Your task to perform on an android device: turn off notifications settings in the gmail app Image 0: 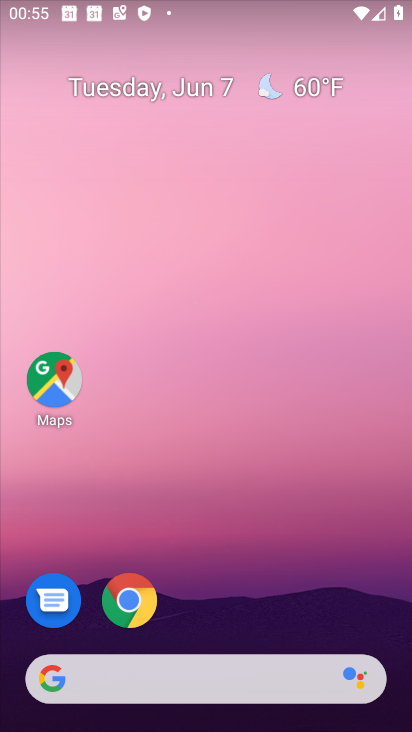
Step 0: drag from (211, 730) to (211, 140)
Your task to perform on an android device: turn off notifications settings in the gmail app Image 1: 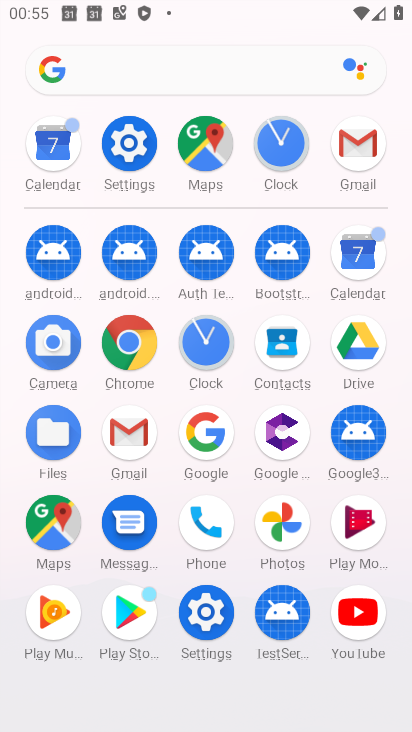
Step 1: click (210, 608)
Your task to perform on an android device: turn off notifications settings in the gmail app Image 2: 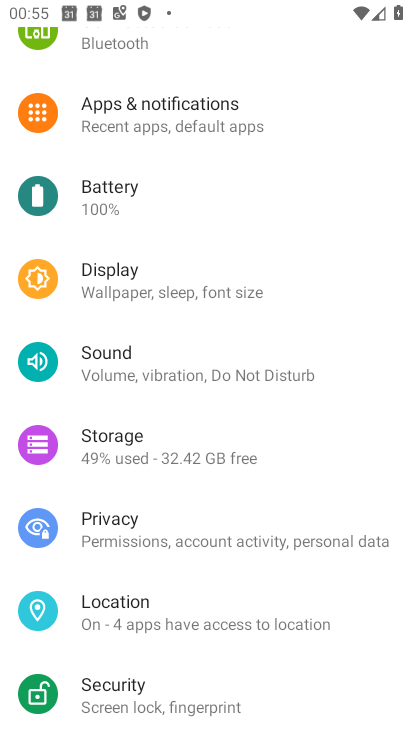
Step 2: press home button
Your task to perform on an android device: turn off notifications settings in the gmail app Image 3: 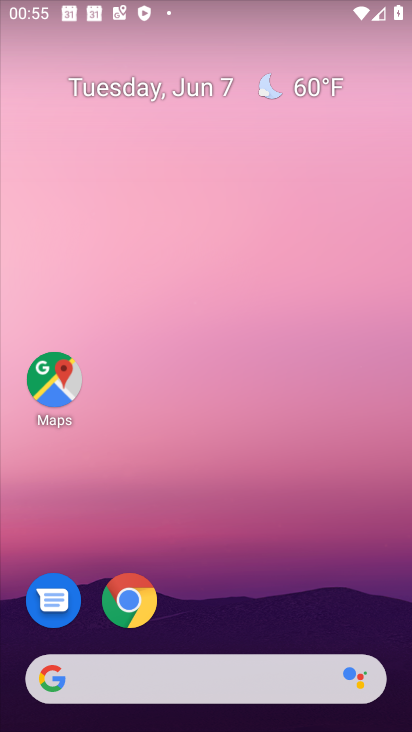
Step 3: drag from (183, 730) to (180, 253)
Your task to perform on an android device: turn off notifications settings in the gmail app Image 4: 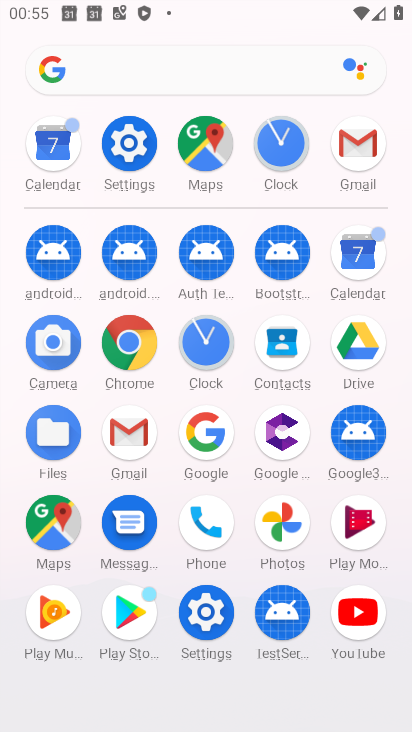
Step 4: click (138, 432)
Your task to perform on an android device: turn off notifications settings in the gmail app Image 5: 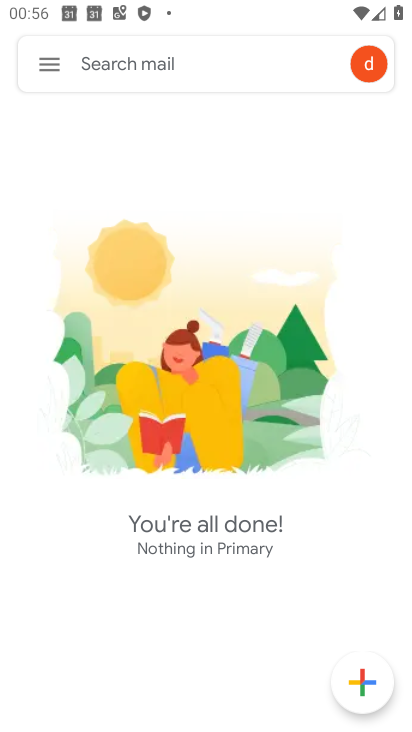
Step 5: click (51, 57)
Your task to perform on an android device: turn off notifications settings in the gmail app Image 6: 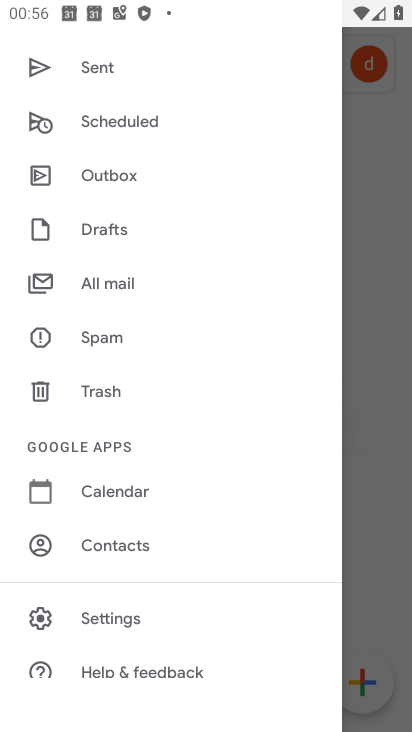
Step 6: click (105, 616)
Your task to perform on an android device: turn off notifications settings in the gmail app Image 7: 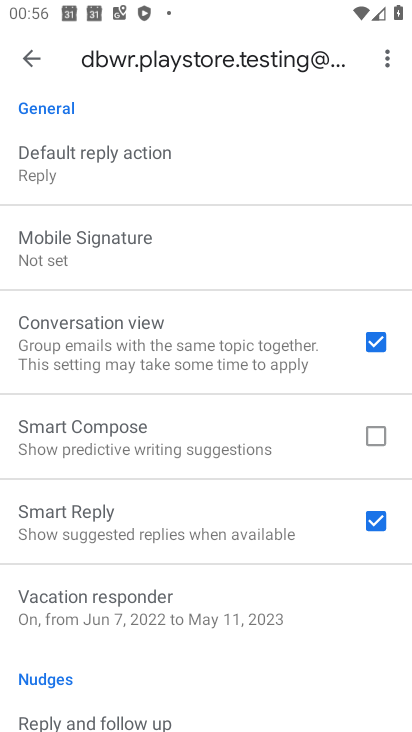
Step 7: drag from (218, 231) to (212, 609)
Your task to perform on an android device: turn off notifications settings in the gmail app Image 8: 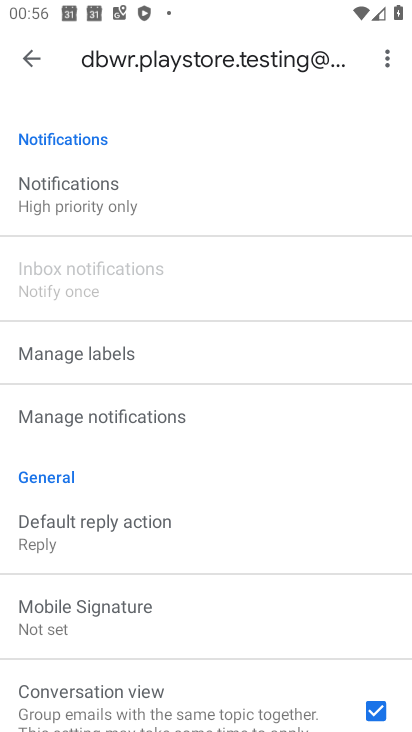
Step 8: drag from (216, 149) to (235, 592)
Your task to perform on an android device: turn off notifications settings in the gmail app Image 9: 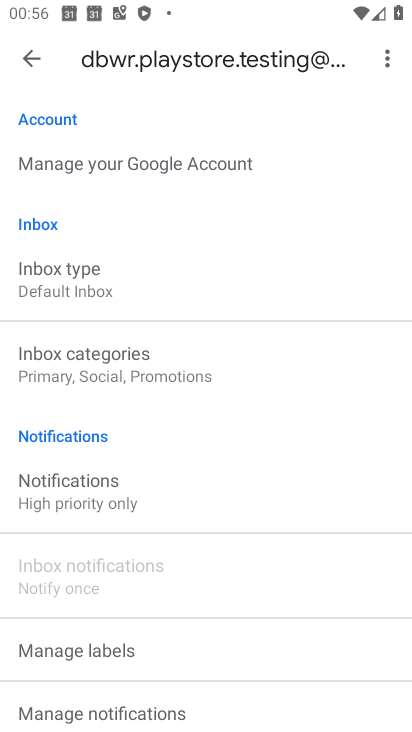
Step 9: click (67, 510)
Your task to perform on an android device: turn off notifications settings in the gmail app Image 10: 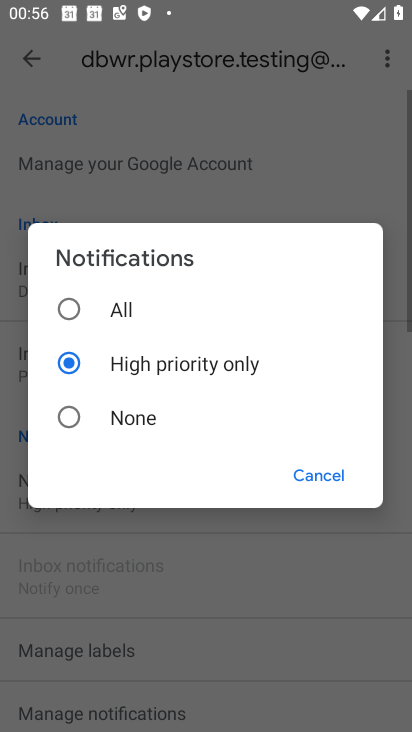
Step 10: click (69, 412)
Your task to perform on an android device: turn off notifications settings in the gmail app Image 11: 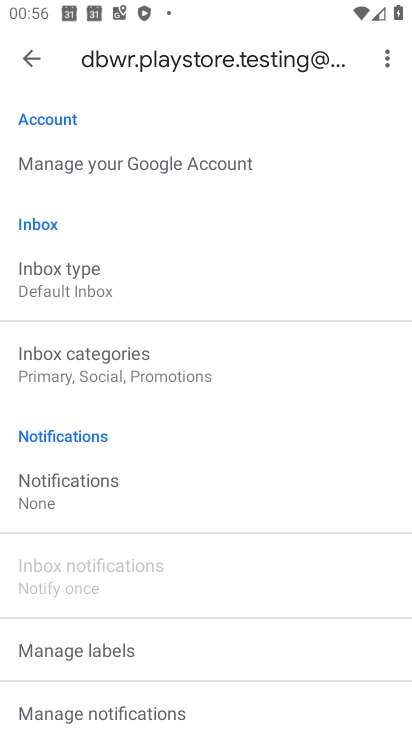
Step 11: task complete